Your task to perform on an android device: turn off location history Image 0: 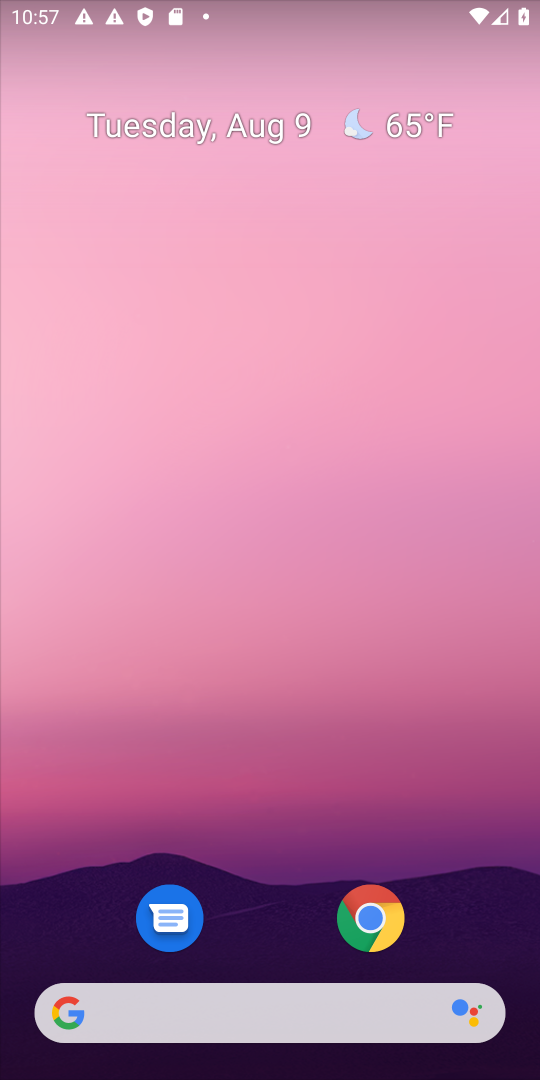
Step 0: drag from (272, 618) to (307, 181)
Your task to perform on an android device: turn off location history Image 1: 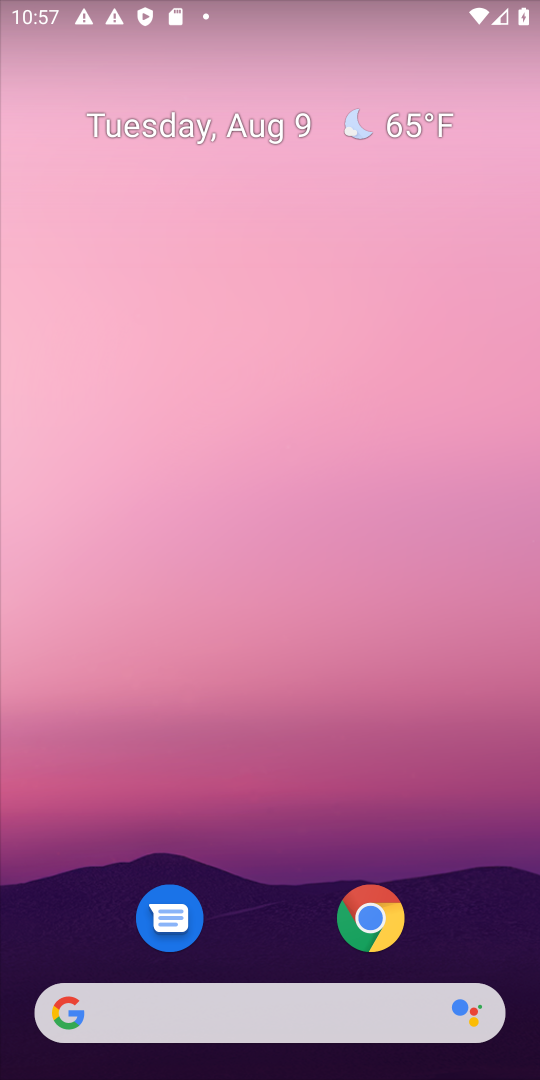
Step 1: drag from (275, 930) to (259, 186)
Your task to perform on an android device: turn off location history Image 2: 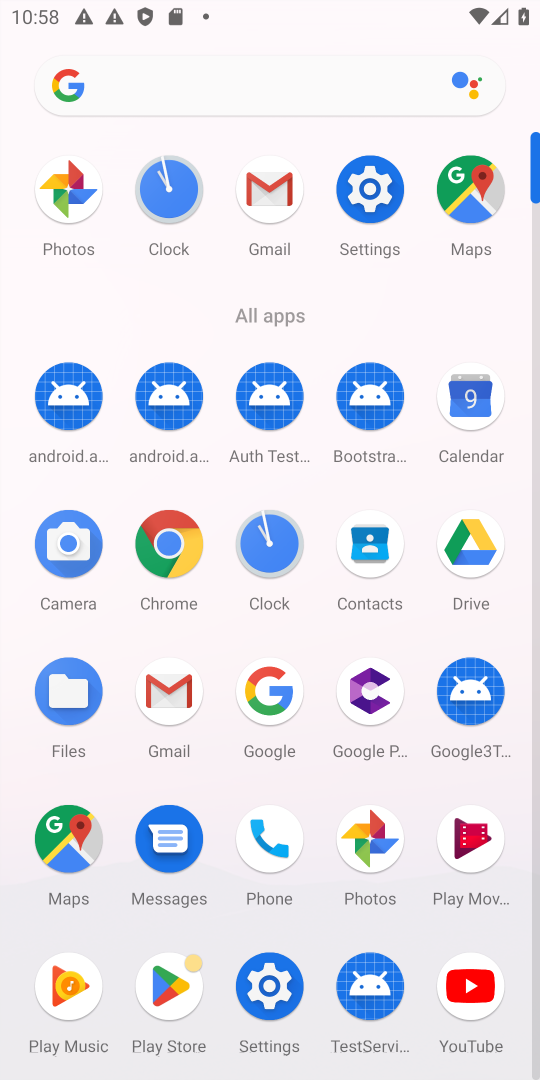
Step 2: click (282, 983)
Your task to perform on an android device: turn off location history Image 3: 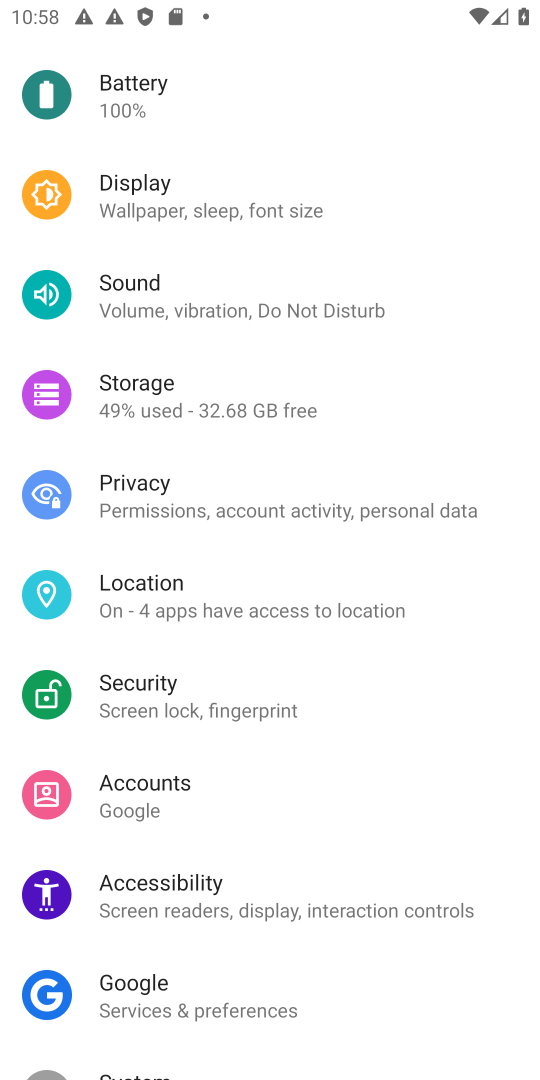
Step 3: click (210, 593)
Your task to perform on an android device: turn off location history Image 4: 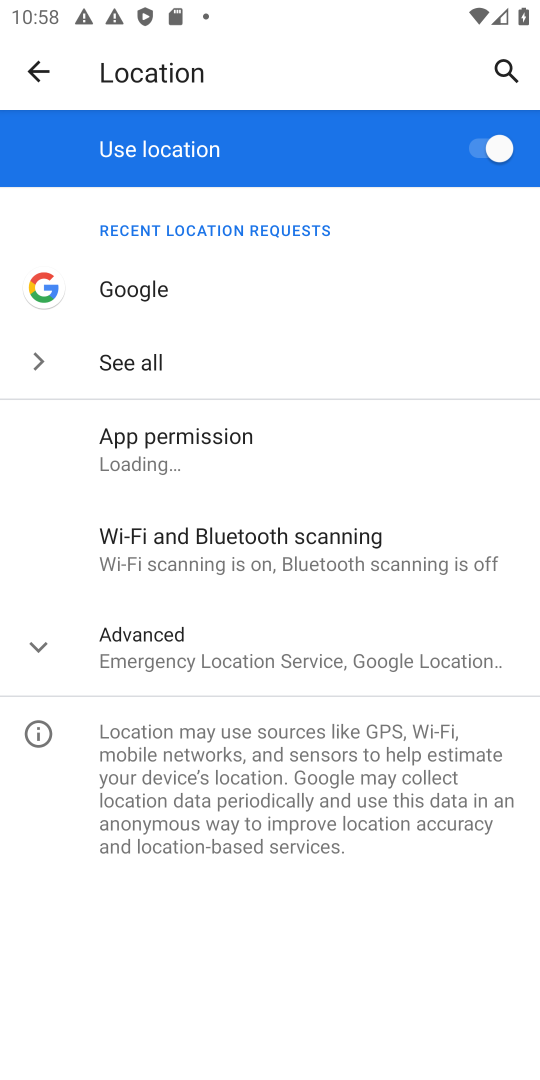
Step 4: click (200, 662)
Your task to perform on an android device: turn off location history Image 5: 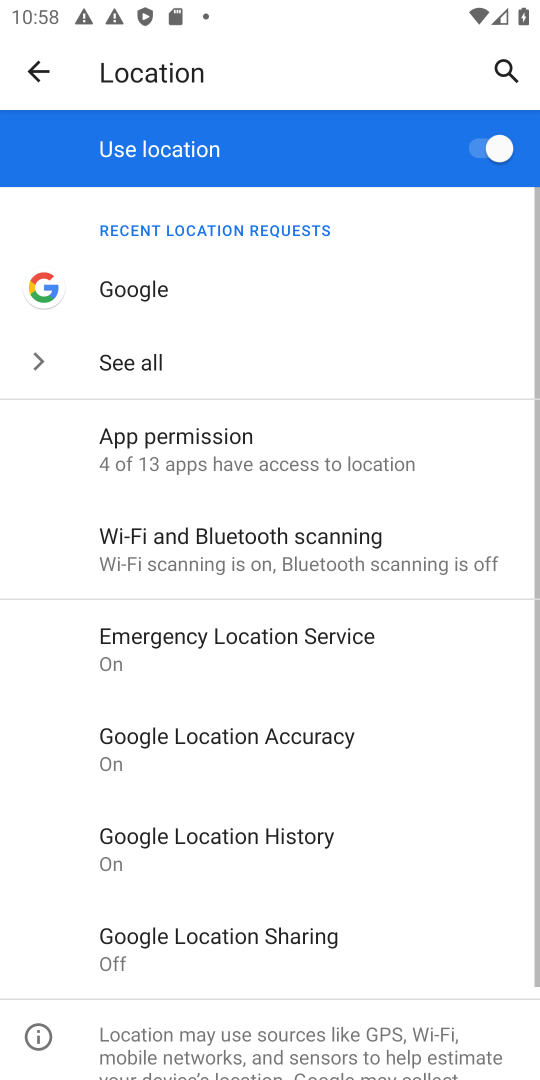
Step 5: click (251, 825)
Your task to perform on an android device: turn off location history Image 6: 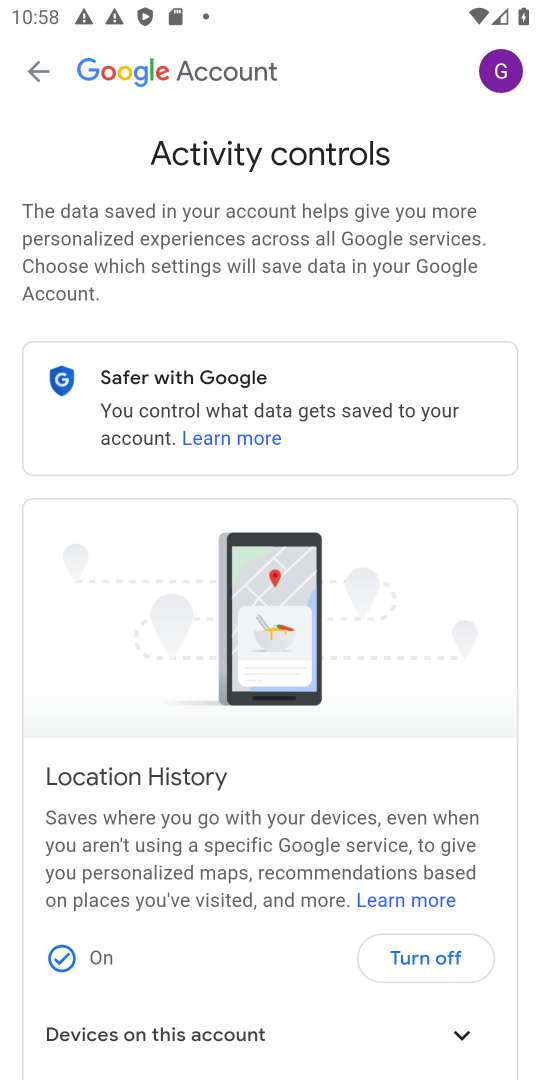
Step 6: click (440, 962)
Your task to perform on an android device: turn off location history Image 7: 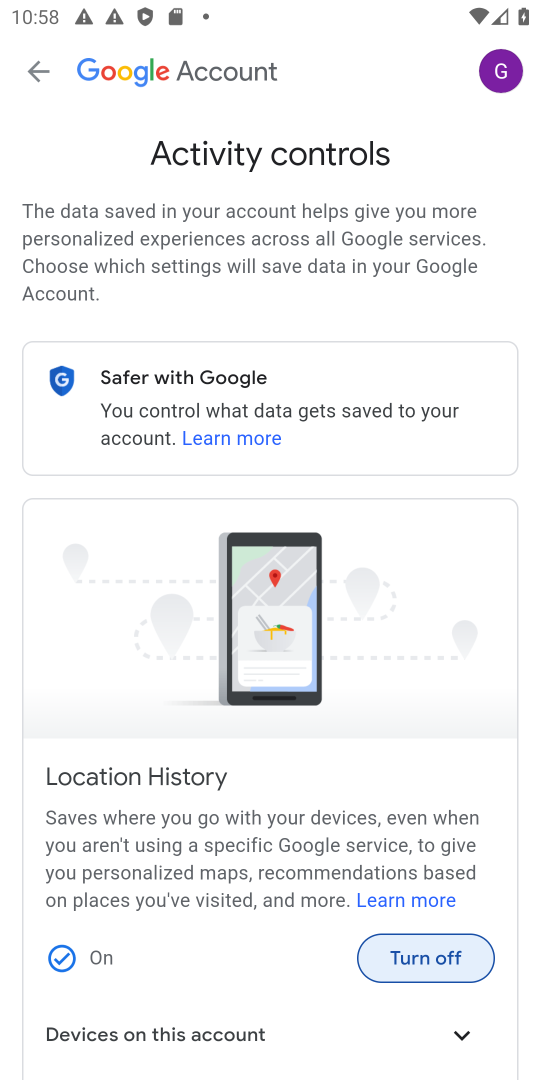
Step 7: click (429, 954)
Your task to perform on an android device: turn off location history Image 8: 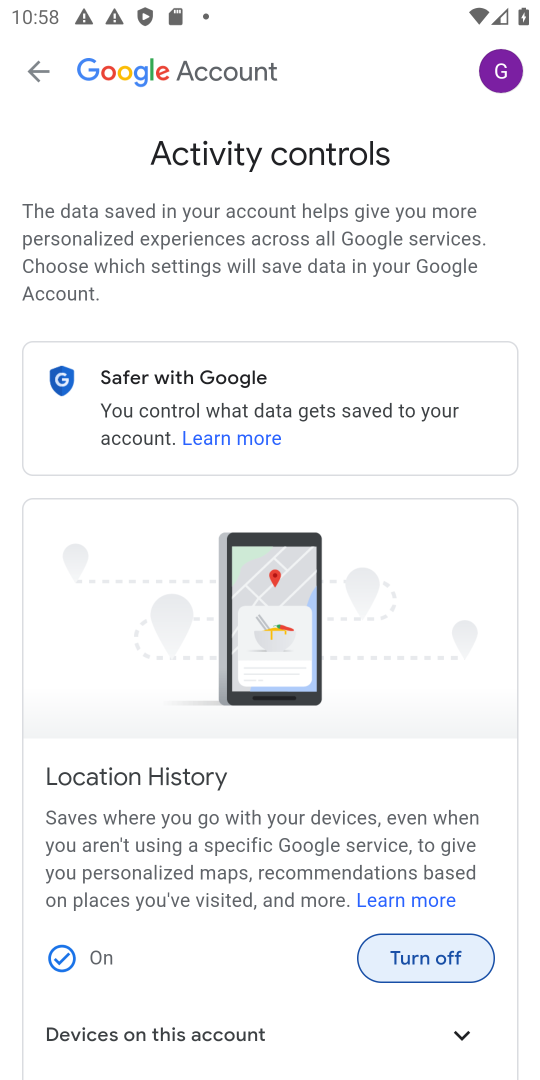
Step 8: click (429, 954)
Your task to perform on an android device: turn off location history Image 9: 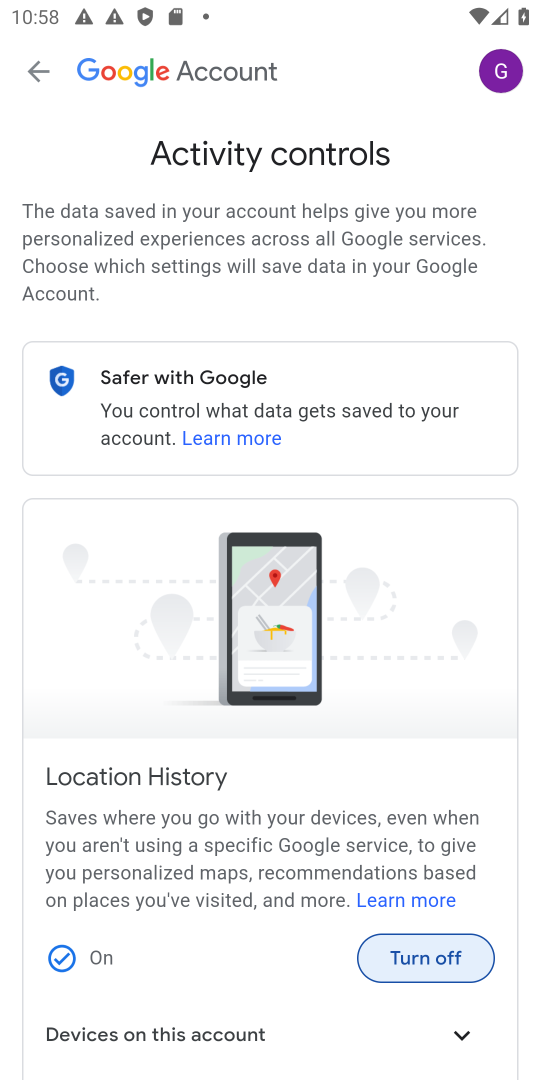
Step 9: click (428, 952)
Your task to perform on an android device: turn off location history Image 10: 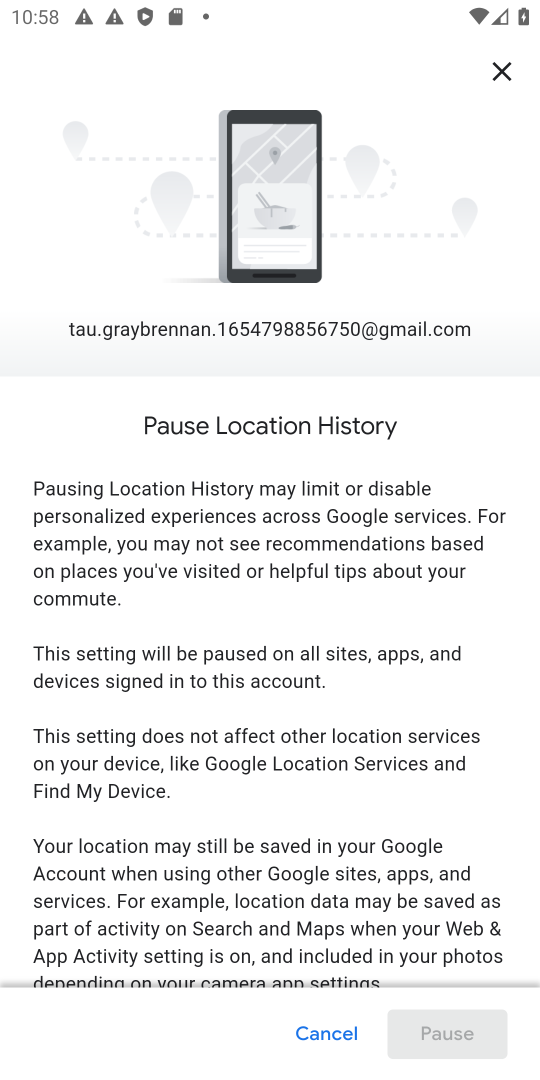
Step 10: drag from (428, 952) to (409, 315)
Your task to perform on an android device: turn off location history Image 11: 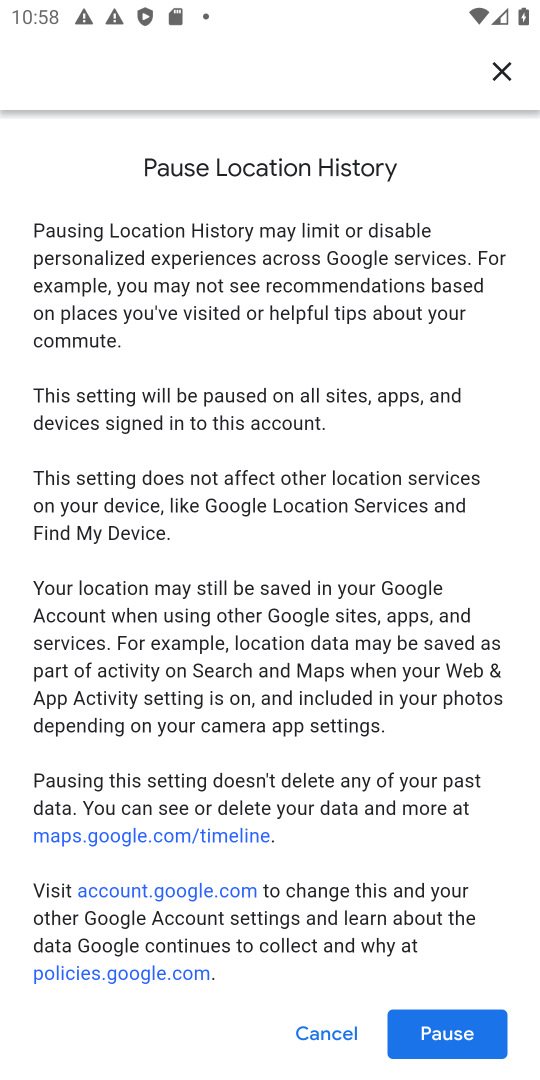
Step 11: click (446, 1033)
Your task to perform on an android device: turn off location history Image 12: 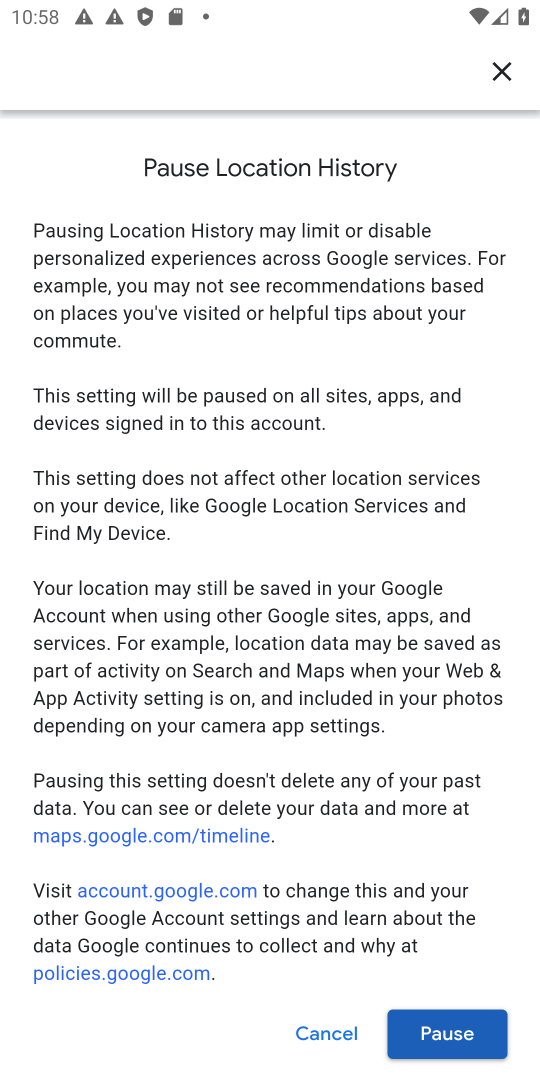
Step 12: click (446, 1033)
Your task to perform on an android device: turn off location history Image 13: 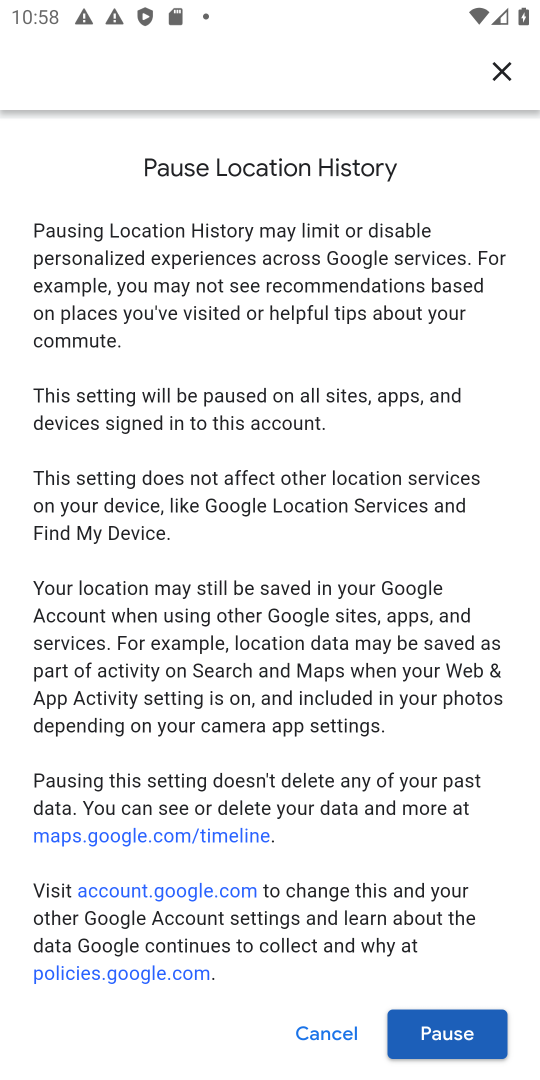
Step 13: click (446, 1038)
Your task to perform on an android device: turn off location history Image 14: 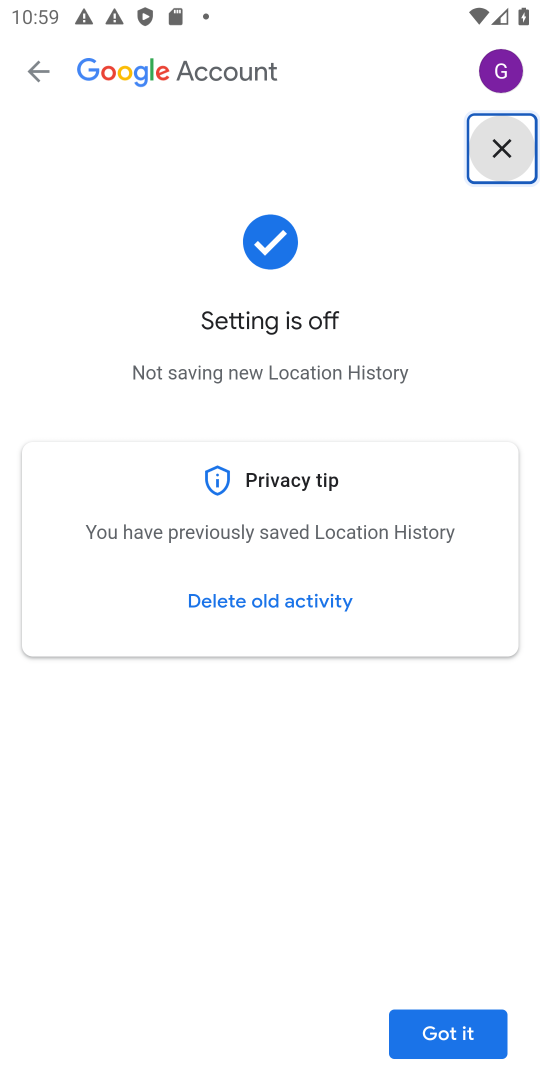
Step 14: task complete